Your task to perform on an android device: check android version Image 0: 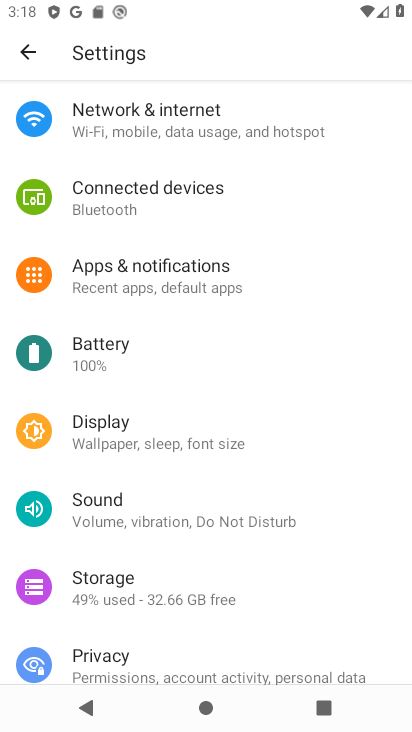
Step 0: drag from (369, 556) to (375, 351)
Your task to perform on an android device: check android version Image 1: 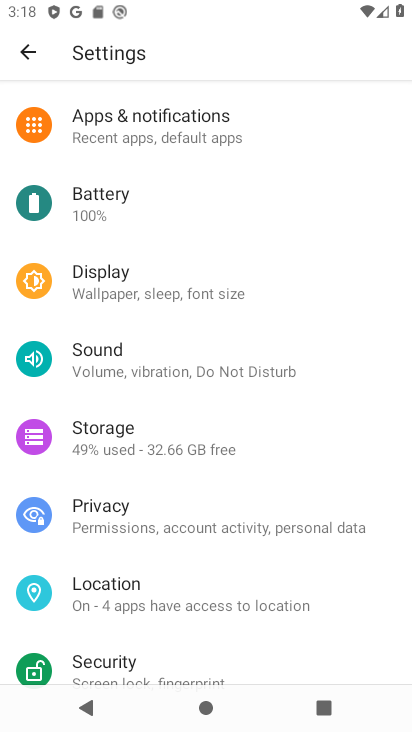
Step 1: drag from (338, 213) to (322, 351)
Your task to perform on an android device: check android version Image 2: 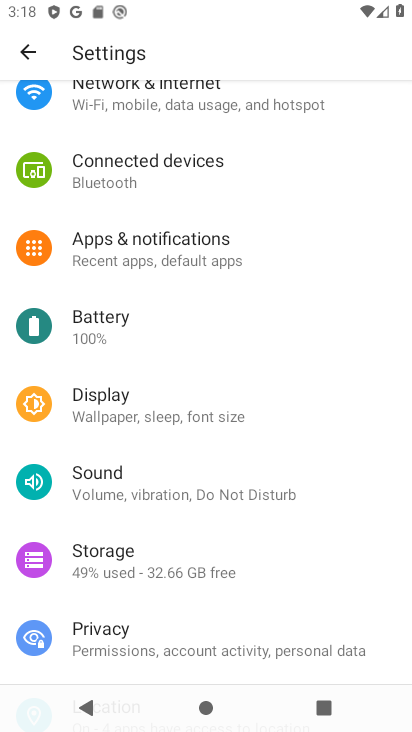
Step 2: drag from (338, 219) to (330, 325)
Your task to perform on an android device: check android version Image 3: 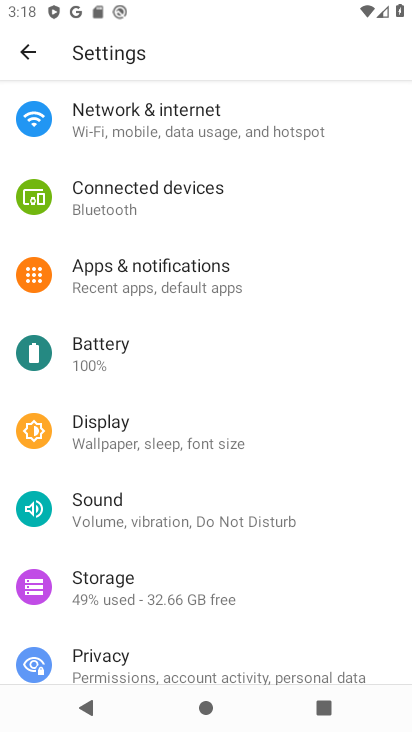
Step 3: drag from (335, 480) to (348, 326)
Your task to perform on an android device: check android version Image 4: 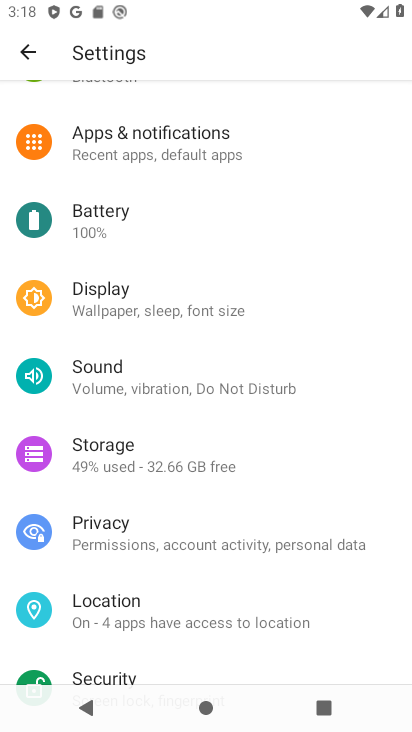
Step 4: drag from (339, 507) to (340, 375)
Your task to perform on an android device: check android version Image 5: 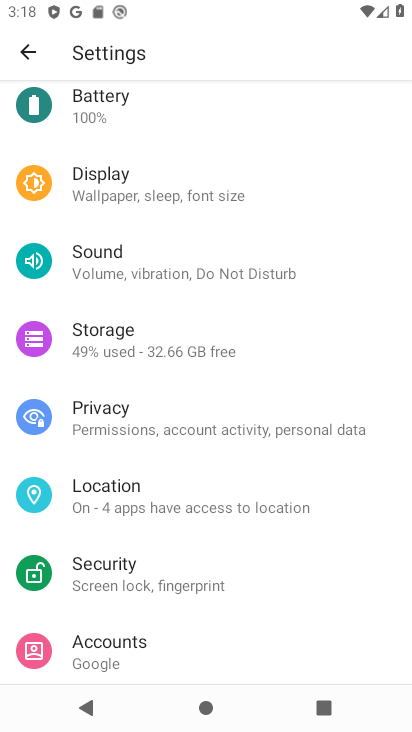
Step 5: drag from (354, 558) to (354, 433)
Your task to perform on an android device: check android version Image 6: 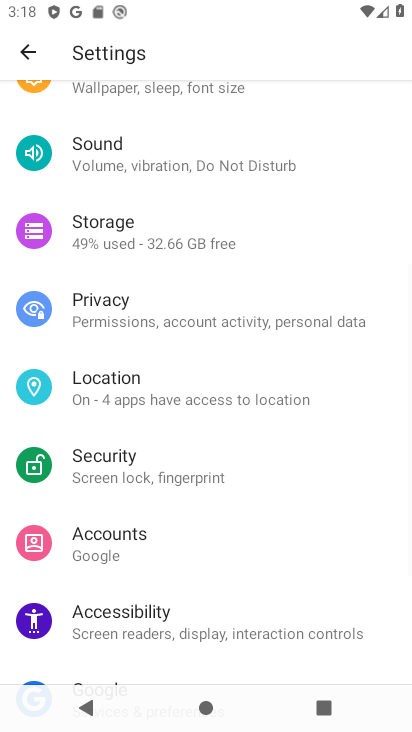
Step 6: drag from (346, 565) to (357, 425)
Your task to perform on an android device: check android version Image 7: 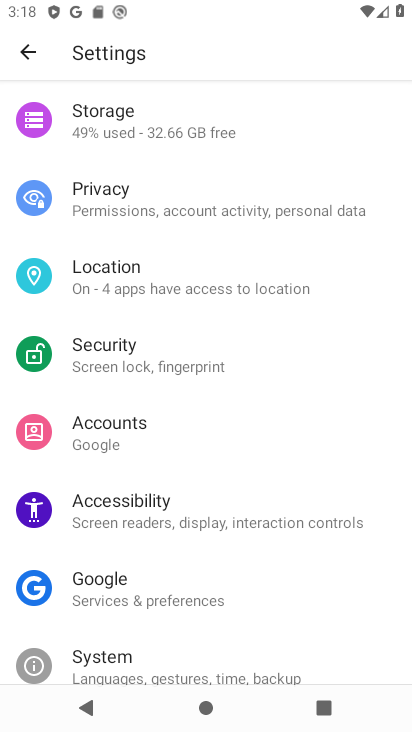
Step 7: drag from (350, 595) to (348, 425)
Your task to perform on an android device: check android version Image 8: 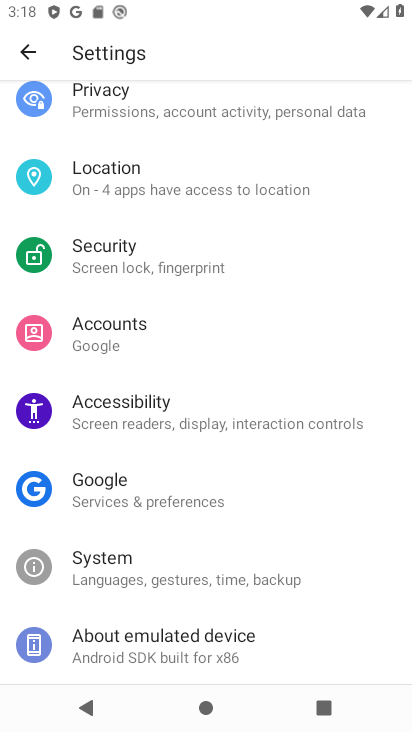
Step 8: drag from (345, 598) to (350, 397)
Your task to perform on an android device: check android version Image 9: 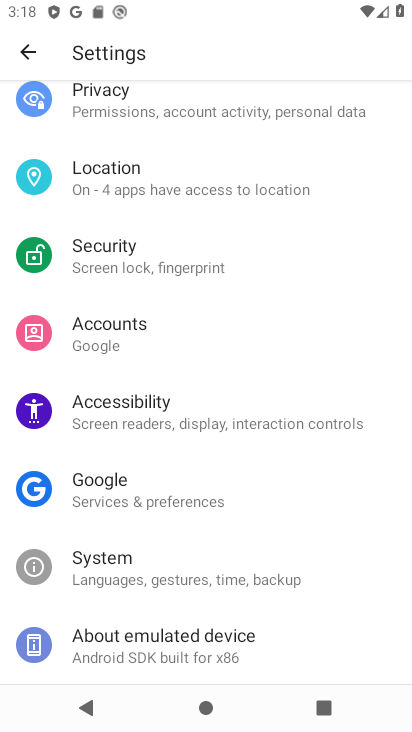
Step 9: click (244, 586)
Your task to perform on an android device: check android version Image 10: 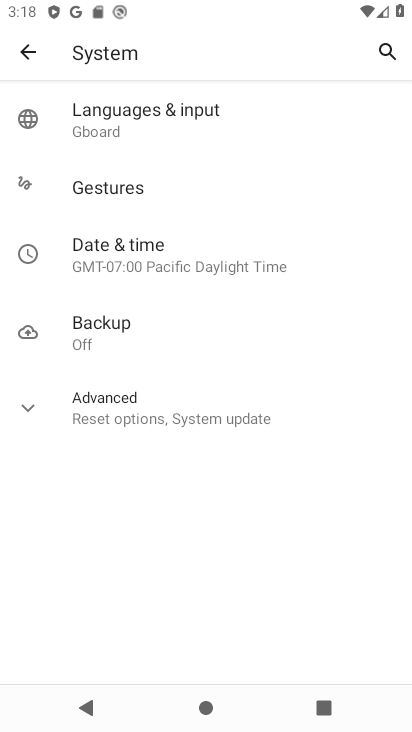
Step 10: click (224, 407)
Your task to perform on an android device: check android version Image 11: 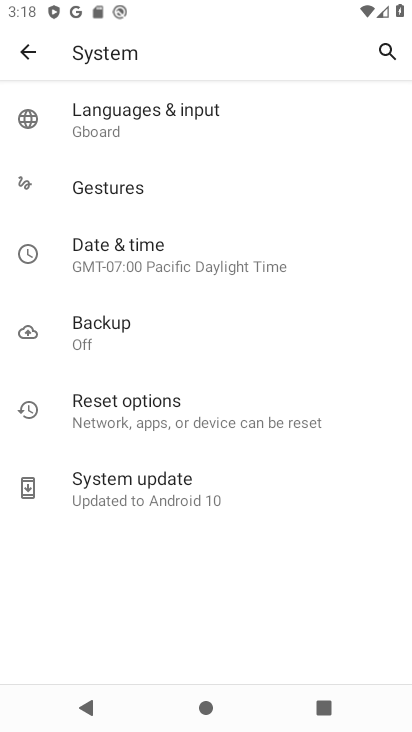
Step 11: click (192, 495)
Your task to perform on an android device: check android version Image 12: 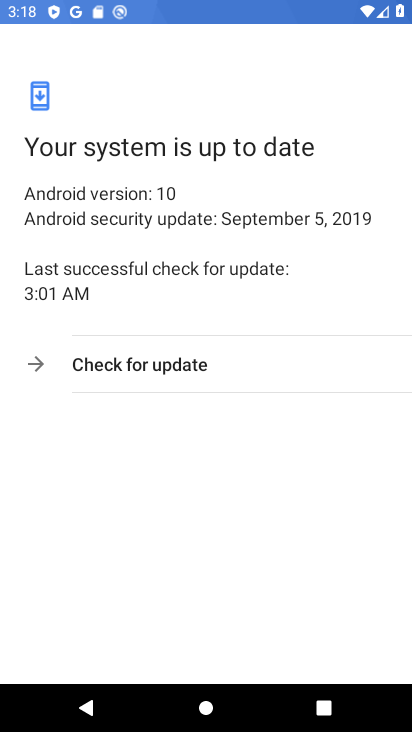
Step 12: task complete